Your task to perform on an android device: turn off translation in the chrome app Image 0: 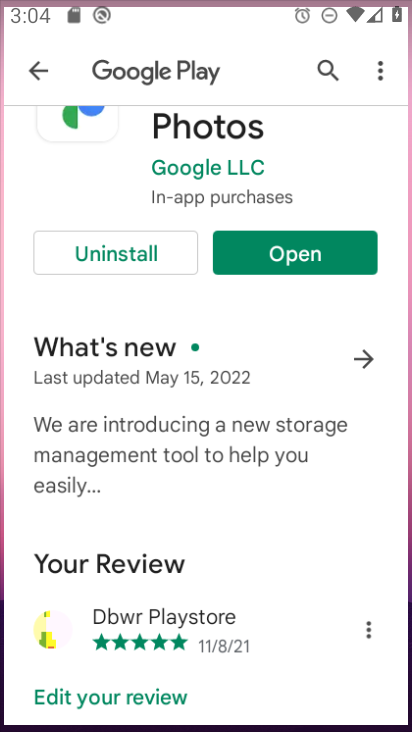
Step 0: drag from (196, 489) to (201, 267)
Your task to perform on an android device: turn off translation in the chrome app Image 1: 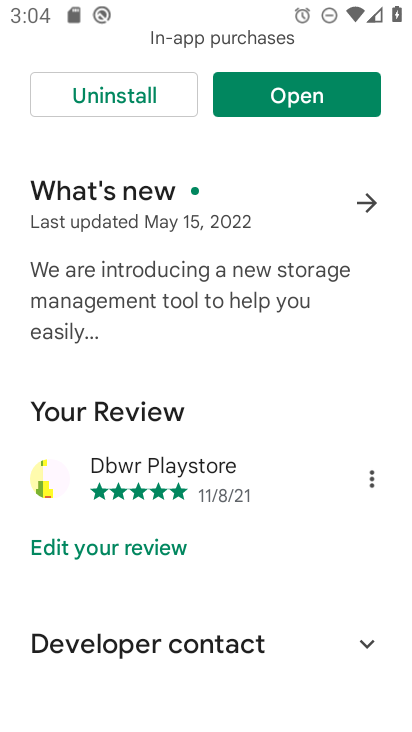
Step 1: press home button
Your task to perform on an android device: turn off translation in the chrome app Image 2: 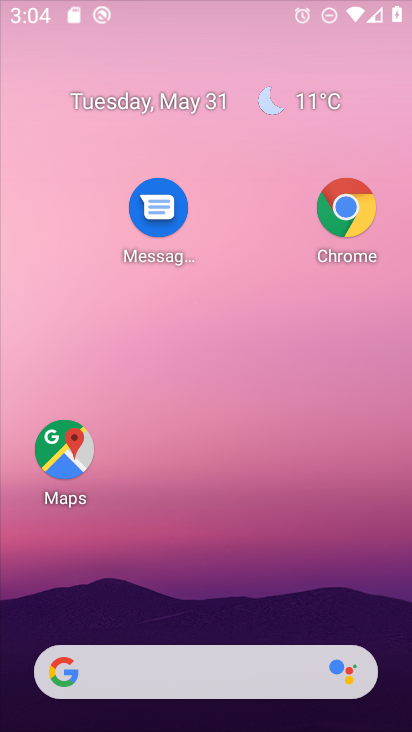
Step 2: drag from (234, 589) to (226, 356)
Your task to perform on an android device: turn off translation in the chrome app Image 3: 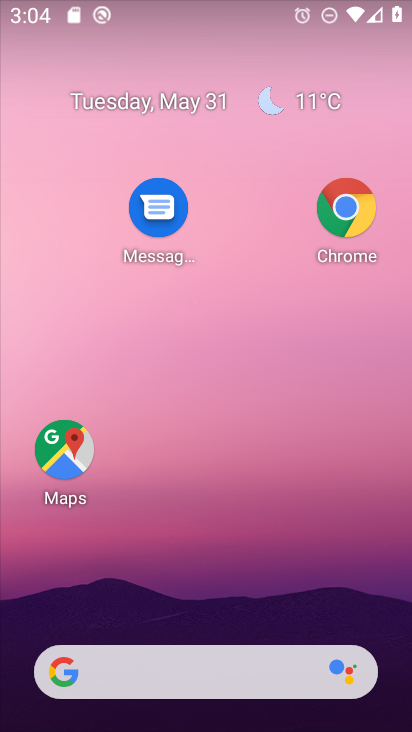
Step 3: click (329, 185)
Your task to perform on an android device: turn off translation in the chrome app Image 4: 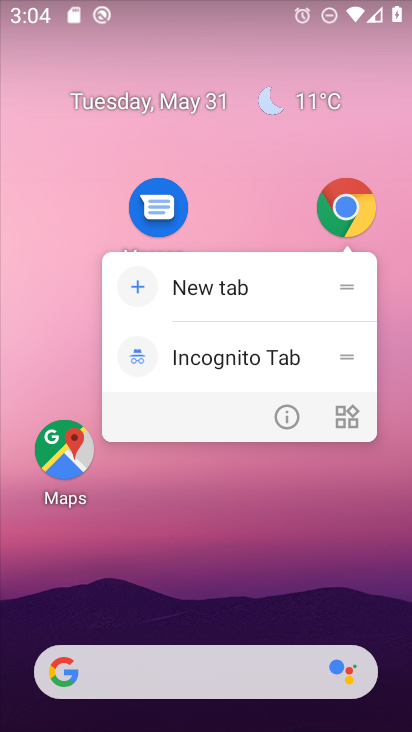
Step 4: click (281, 414)
Your task to perform on an android device: turn off translation in the chrome app Image 5: 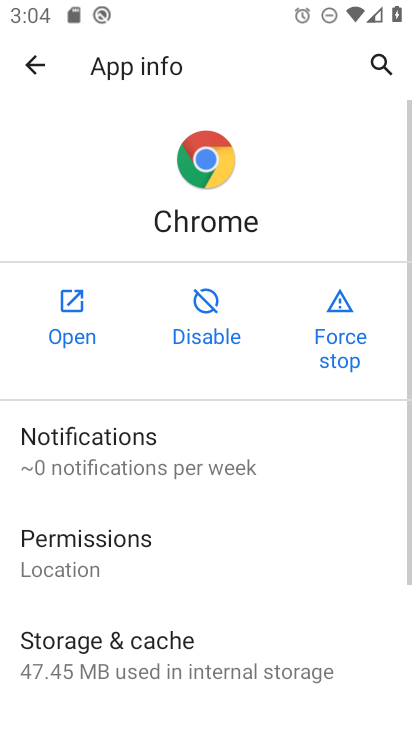
Step 5: click (55, 295)
Your task to perform on an android device: turn off translation in the chrome app Image 6: 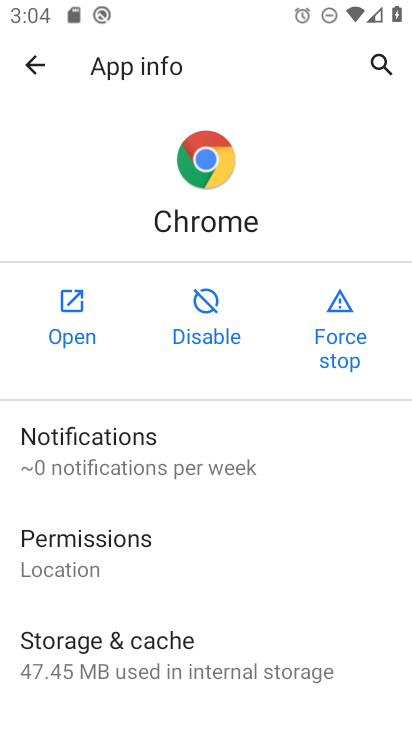
Step 6: click (55, 295)
Your task to perform on an android device: turn off translation in the chrome app Image 7: 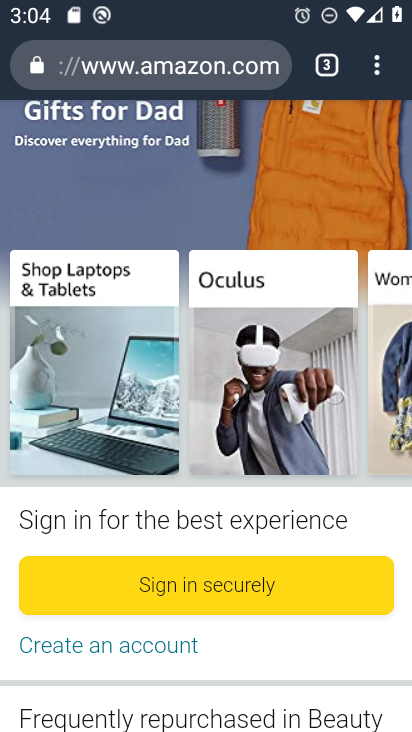
Step 7: click (375, 45)
Your task to perform on an android device: turn off translation in the chrome app Image 8: 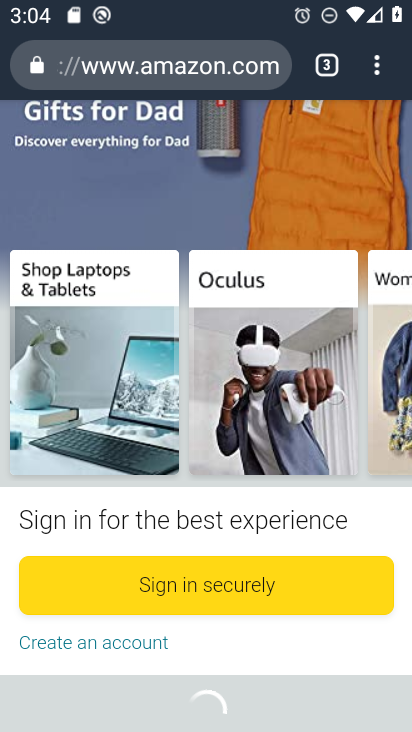
Step 8: click (364, 58)
Your task to perform on an android device: turn off translation in the chrome app Image 9: 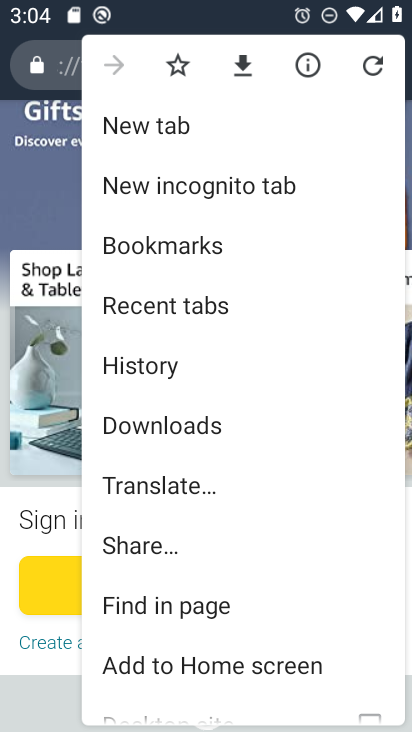
Step 9: drag from (257, 602) to (188, 44)
Your task to perform on an android device: turn off translation in the chrome app Image 10: 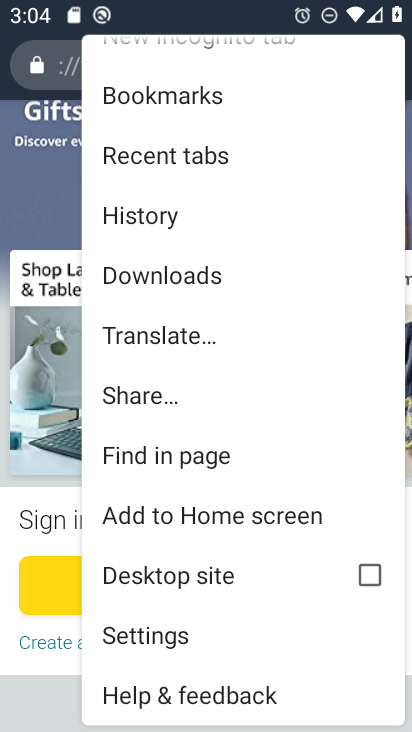
Step 10: click (194, 621)
Your task to perform on an android device: turn off translation in the chrome app Image 11: 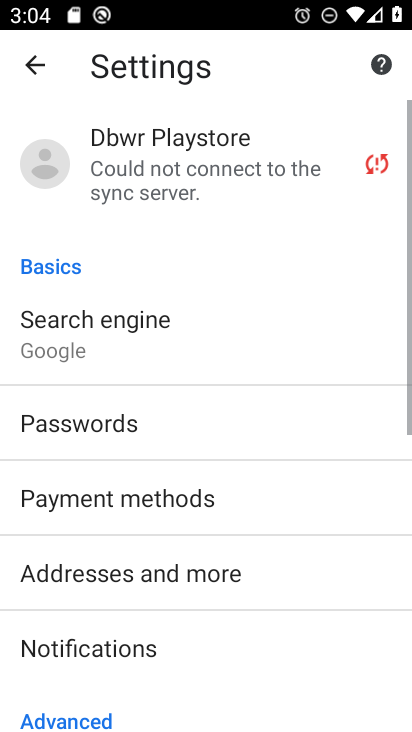
Step 11: drag from (194, 547) to (116, 119)
Your task to perform on an android device: turn off translation in the chrome app Image 12: 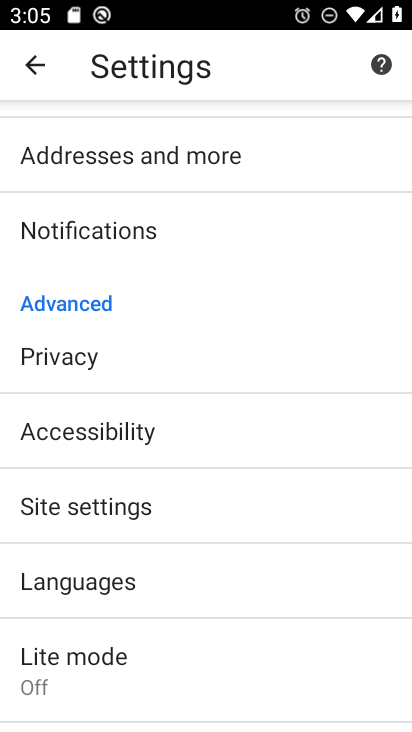
Step 12: click (156, 568)
Your task to perform on an android device: turn off translation in the chrome app Image 13: 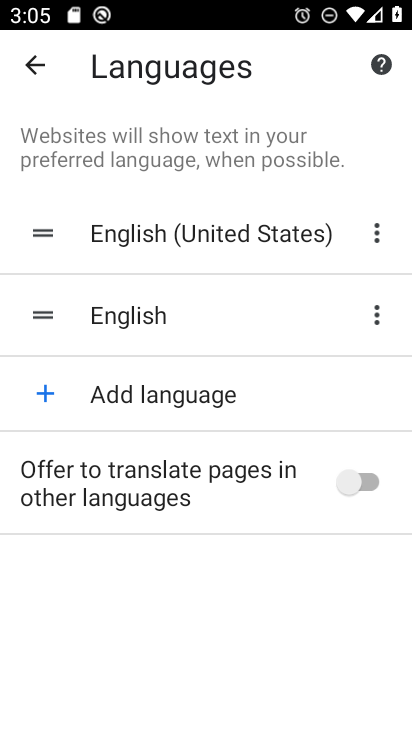
Step 13: task complete